Your task to perform on an android device: see sites visited before in the chrome app Image 0: 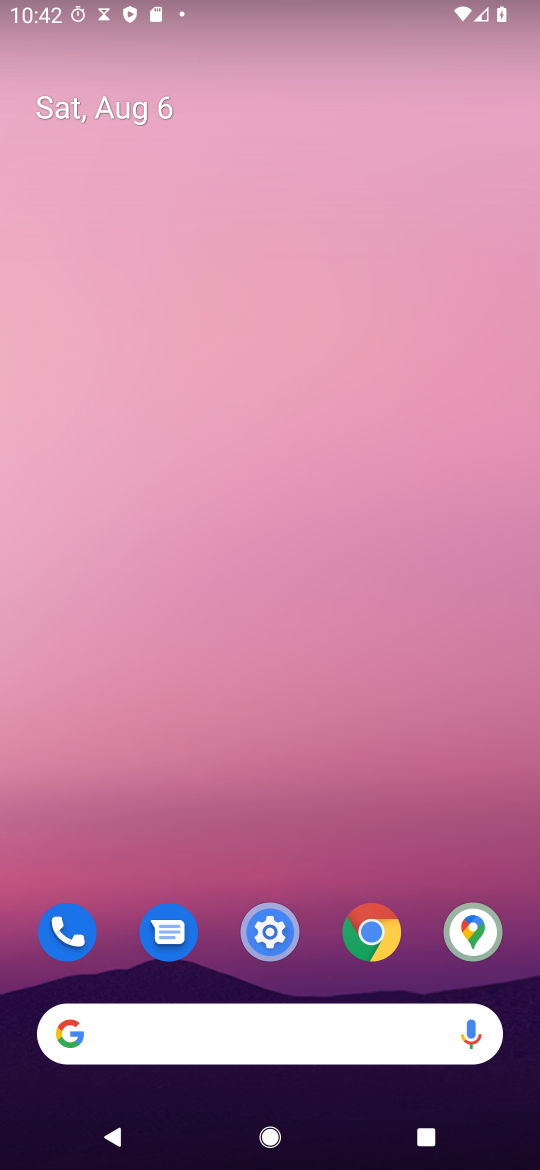
Step 0: click (368, 939)
Your task to perform on an android device: see sites visited before in the chrome app Image 1: 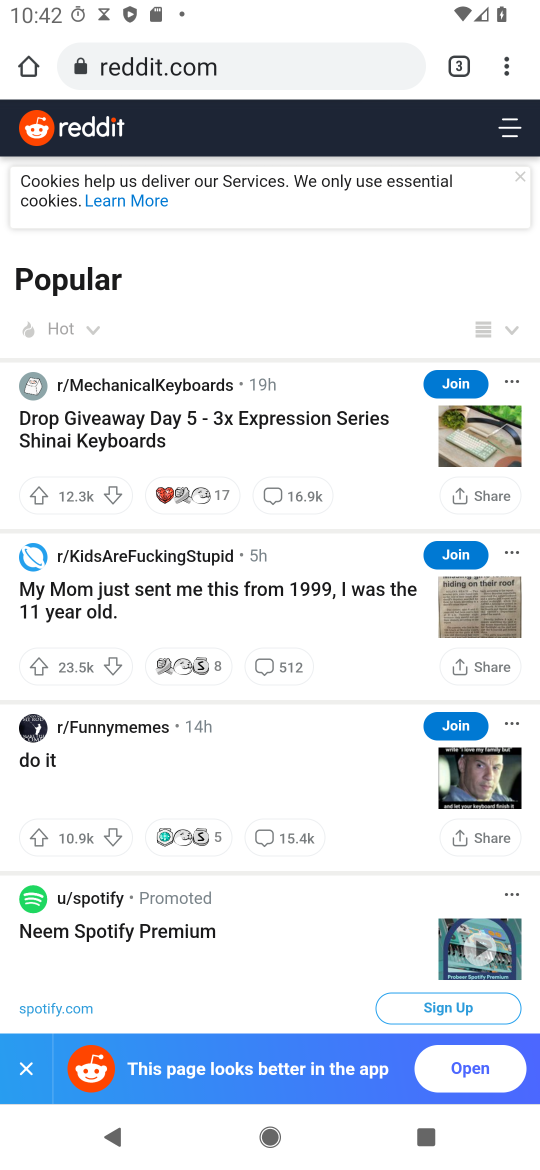
Step 1: click (506, 67)
Your task to perform on an android device: see sites visited before in the chrome app Image 2: 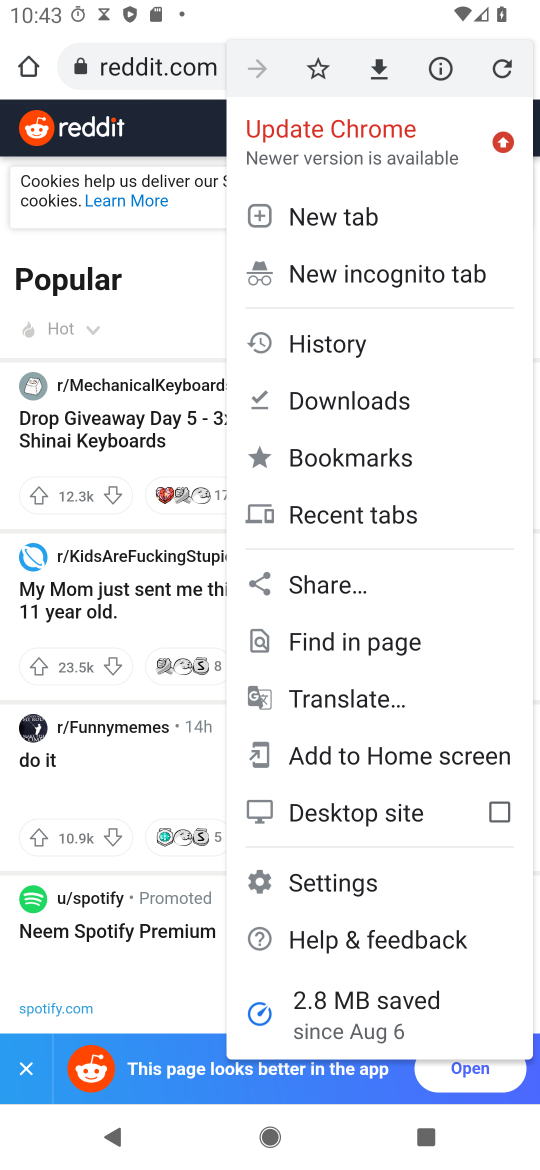
Step 2: click (342, 353)
Your task to perform on an android device: see sites visited before in the chrome app Image 3: 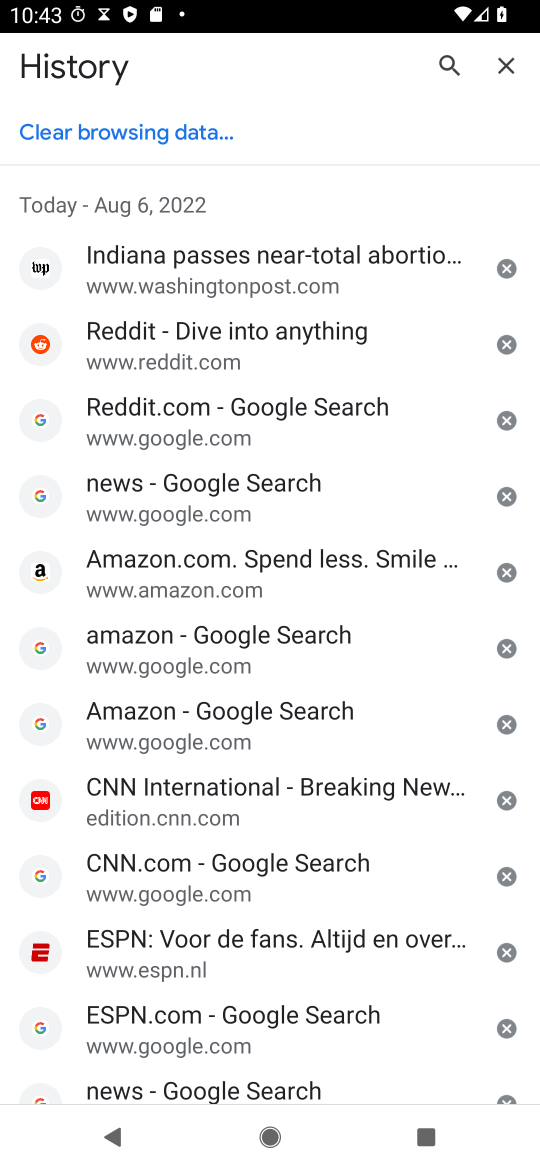
Step 3: task complete